Your task to perform on an android device: Do I have any events today? Image 0: 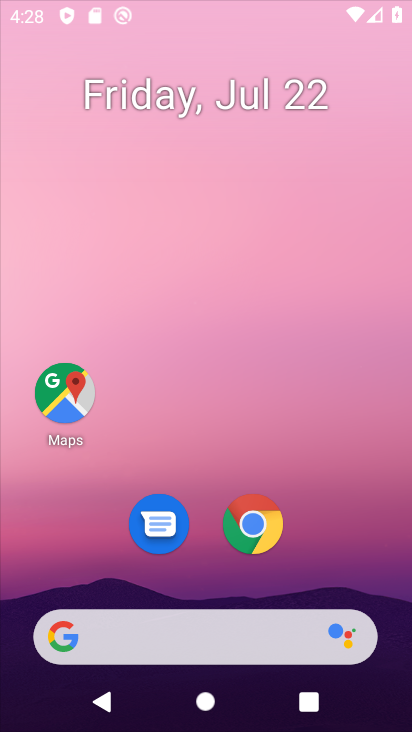
Step 0: click (262, 55)
Your task to perform on an android device: Do I have any events today? Image 1: 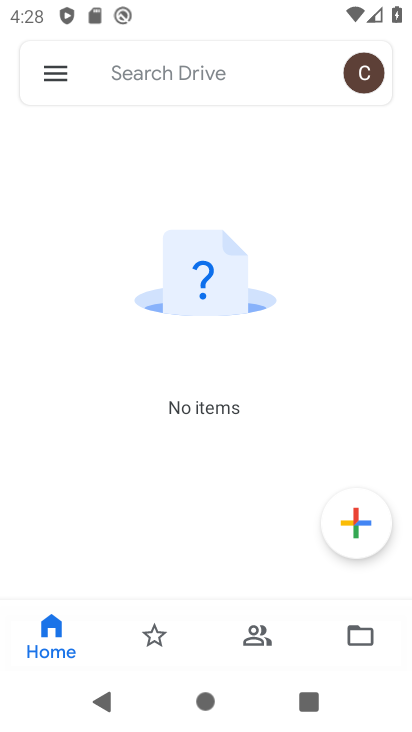
Step 1: press home button
Your task to perform on an android device: Do I have any events today? Image 2: 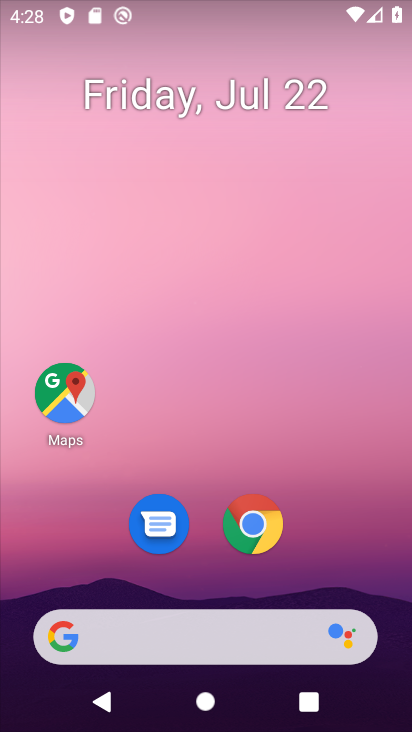
Step 2: drag from (349, 546) to (308, 29)
Your task to perform on an android device: Do I have any events today? Image 3: 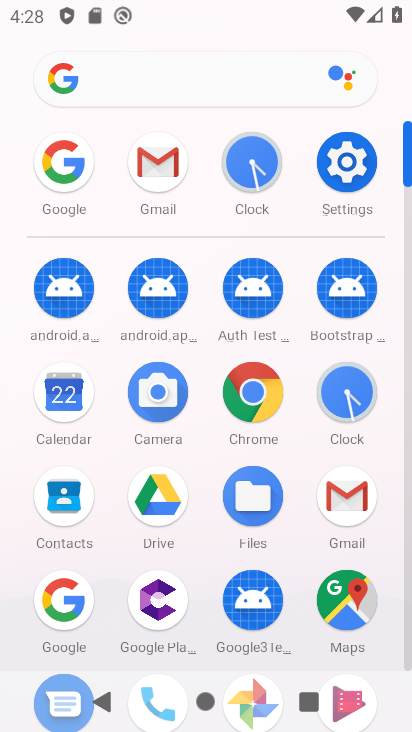
Step 3: click (69, 388)
Your task to perform on an android device: Do I have any events today? Image 4: 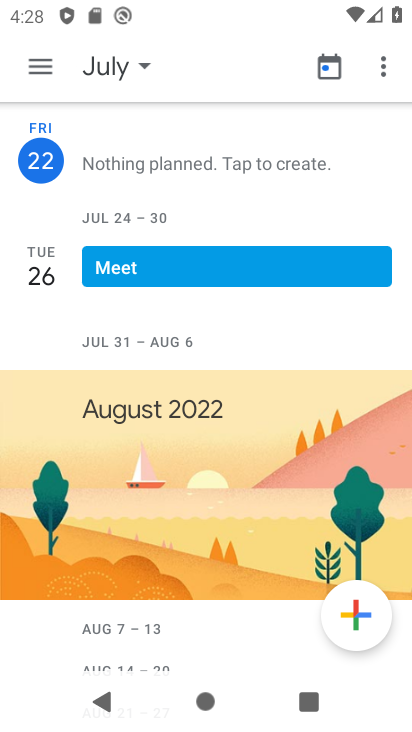
Step 4: click (34, 162)
Your task to perform on an android device: Do I have any events today? Image 5: 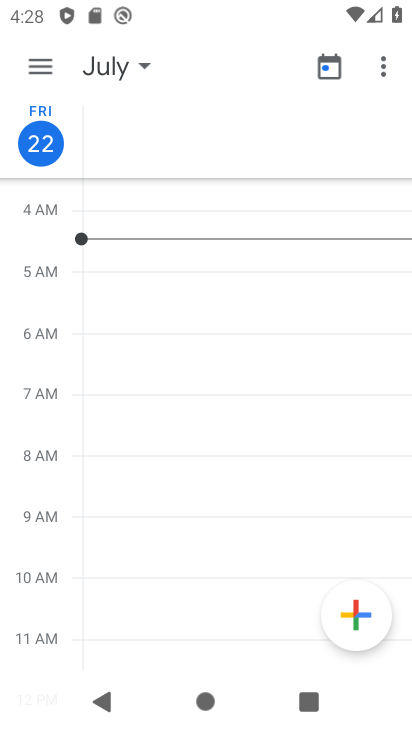
Step 5: task complete